Your task to perform on an android device: Search for "alienware area 51" on target.com, select the first entry, and add it to the cart. Image 0: 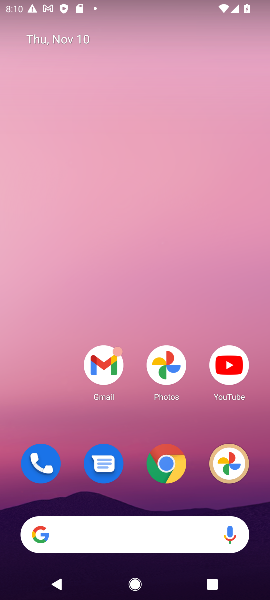
Step 0: click (167, 467)
Your task to perform on an android device: Search for "alienware area 51" on target.com, select the first entry, and add it to the cart. Image 1: 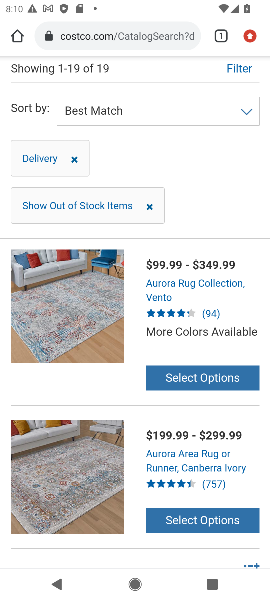
Step 1: drag from (168, 163) to (207, 438)
Your task to perform on an android device: Search for "alienware area 51" on target.com, select the first entry, and add it to the cart. Image 2: 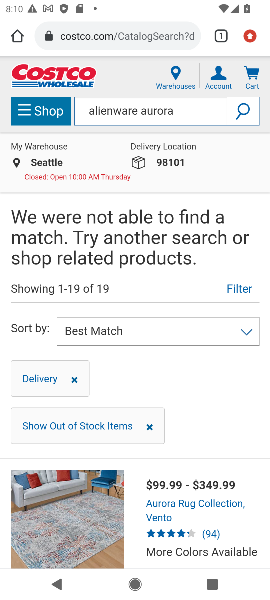
Step 2: click (167, 33)
Your task to perform on an android device: Search for "alienware area 51" on target.com, select the first entry, and add it to the cart. Image 3: 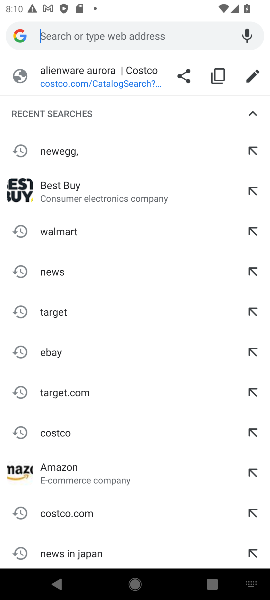
Step 3: click (47, 310)
Your task to perform on an android device: Search for "alienware area 51" on target.com, select the first entry, and add it to the cart. Image 4: 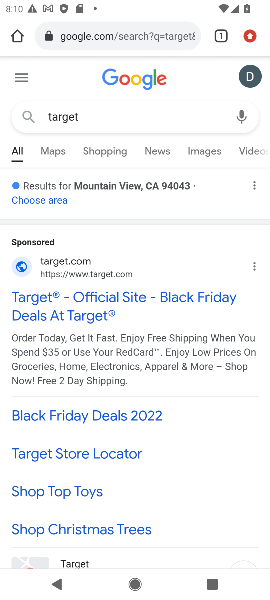
Step 4: click (105, 291)
Your task to perform on an android device: Search for "alienware area 51" on target.com, select the first entry, and add it to the cart. Image 5: 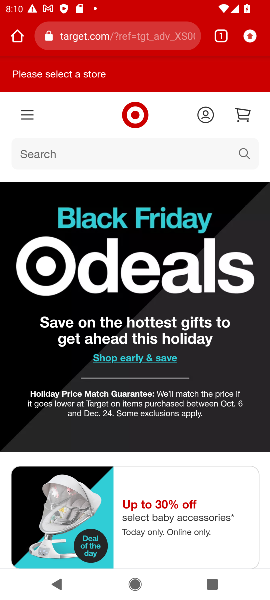
Step 5: click (68, 149)
Your task to perform on an android device: Search for "alienware area 51" on target.com, select the first entry, and add it to the cart. Image 6: 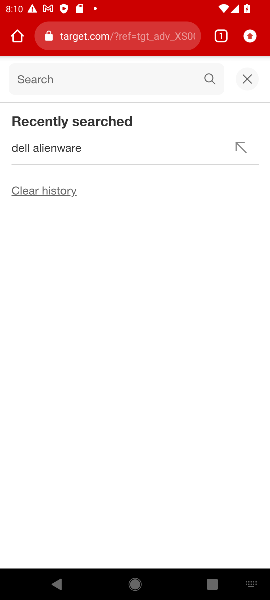
Step 6: click (49, 78)
Your task to perform on an android device: Search for "alienware area 51" on target.com, select the first entry, and add it to the cart. Image 7: 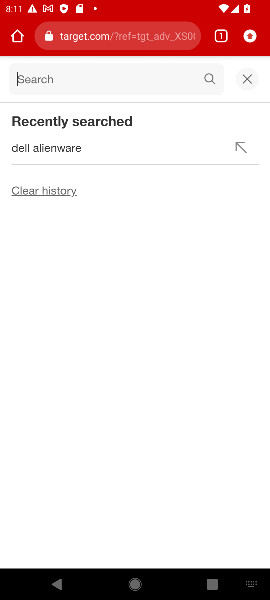
Step 7: type "alienware area 51"
Your task to perform on an android device: Search for "alienware area 51" on target.com, select the first entry, and add it to the cart. Image 8: 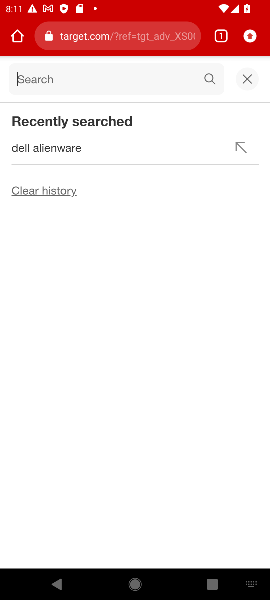
Step 8: press enter
Your task to perform on an android device: Search for "alienware area 51" on target.com, select the first entry, and add it to the cart. Image 9: 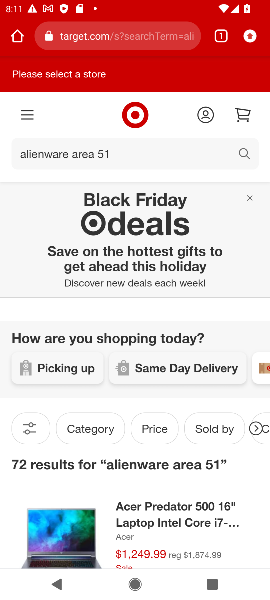
Step 9: task complete